Your task to perform on an android device: Open calendar and show me the first week of next month Image 0: 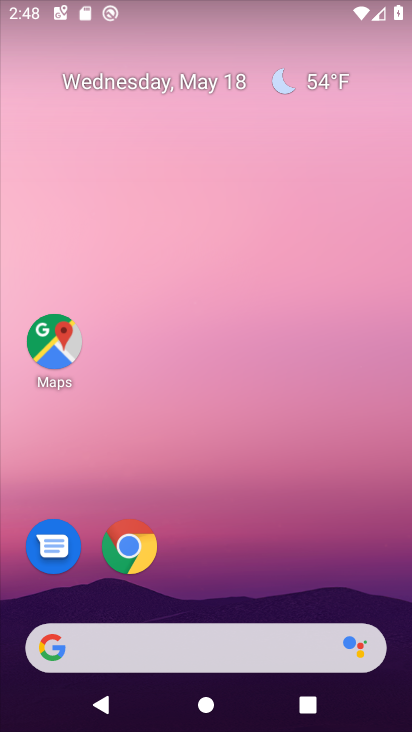
Step 0: drag from (304, 619) to (221, 140)
Your task to perform on an android device: Open calendar and show me the first week of next month Image 1: 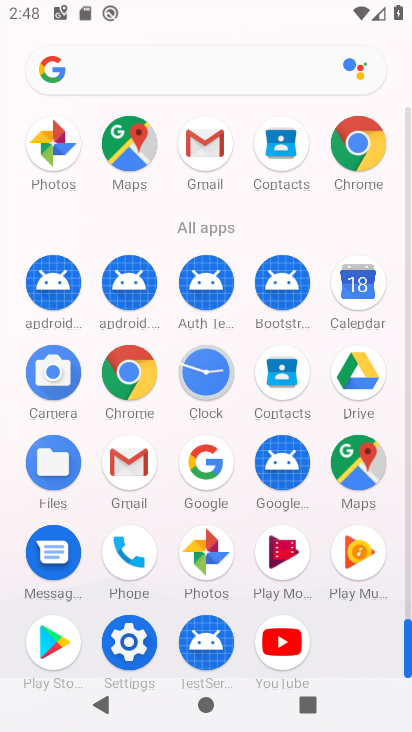
Step 1: click (364, 287)
Your task to perform on an android device: Open calendar and show me the first week of next month Image 2: 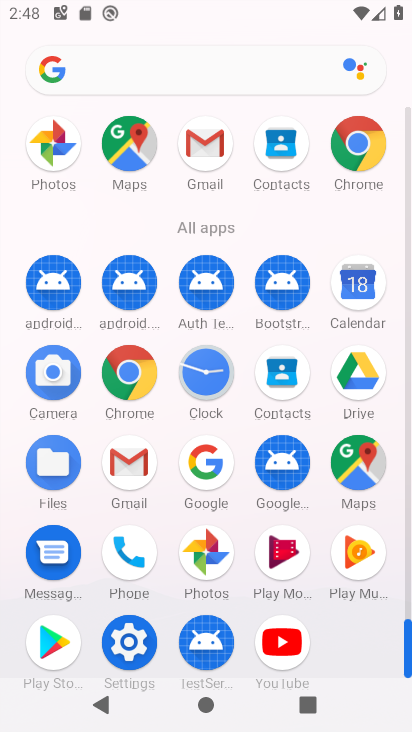
Step 2: click (365, 286)
Your task to perform on an android device: Open calendar and show me the first week of next month Image 3: 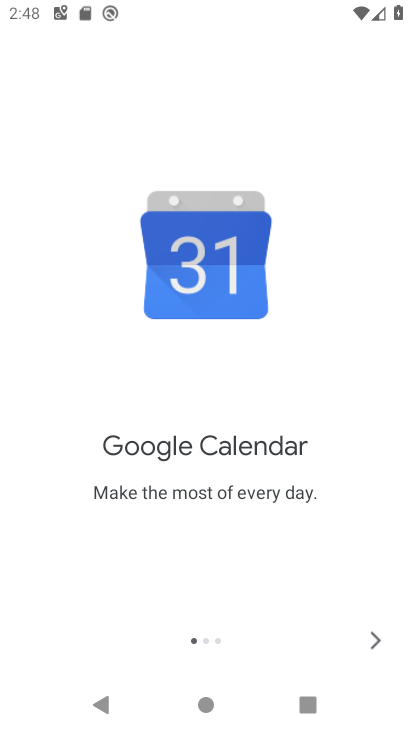
Step 3: click (378, 636)
Your task to perform on an android device: Open calendar and show me the first week of next month Image 4: 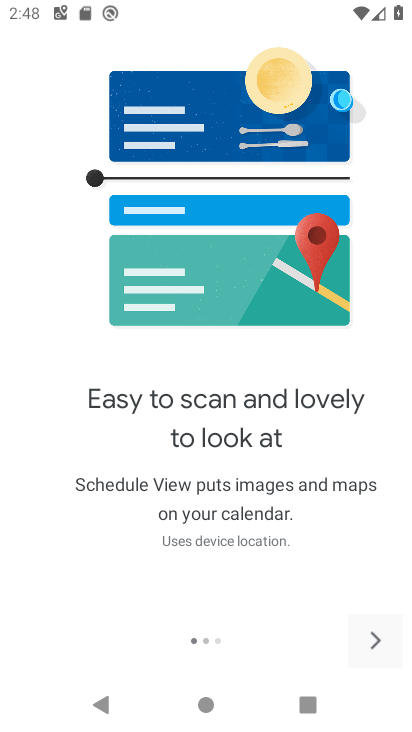
Step 4: click (378, 636)
Your task to perform on an android device: Open calendar and show me the first week of next month Image 5: 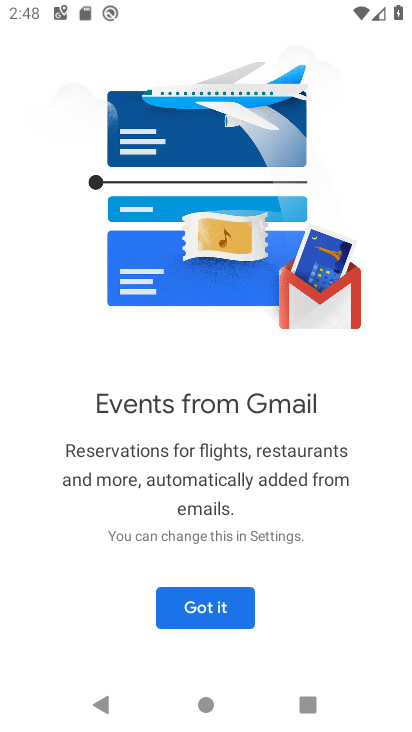
Step 5: click (214, 605)
Your task to perform on an android device: Open calendar and show me the first week of next month Image 6: 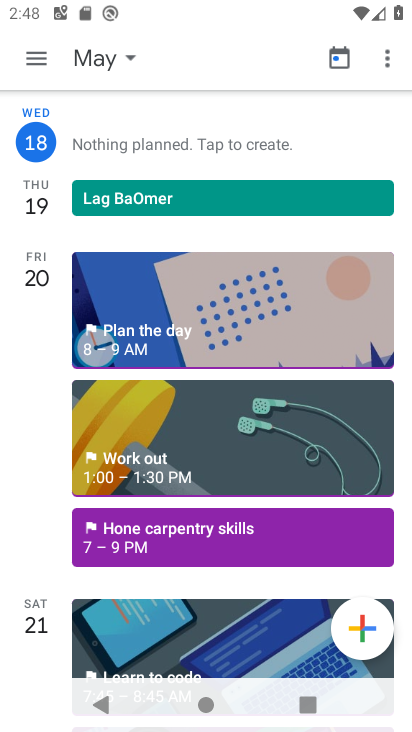
Step 6: click (118, 57)
Your task to perform on an android device: Open calendar and show me the first week of next month Image 7: 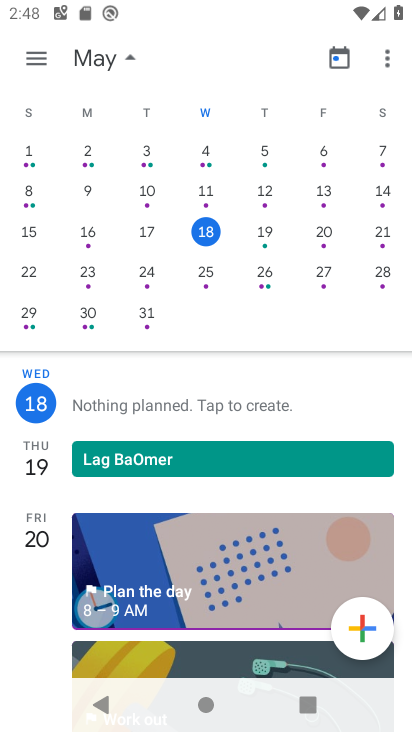
Step 7: drag from (260, 218) to (82, 315)
Your task to perform on an android device: Open calendar and show me the first week of next month Image 8: 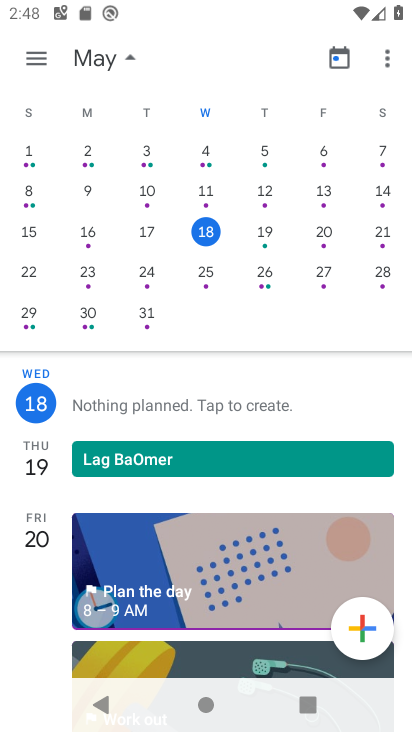
Step 8: drag from (246, 201) to (86, 354)
Your task to perform on an android device: Open calendar and show me the first week of next month Image 9: 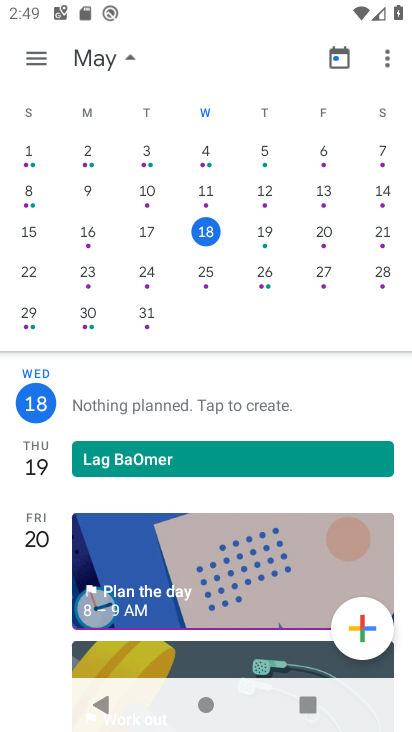
Step 9: drag from (218, 218) to (18, 323)
Your task to perform on an android device: Open calendar and show me the first week of next month Image 10: 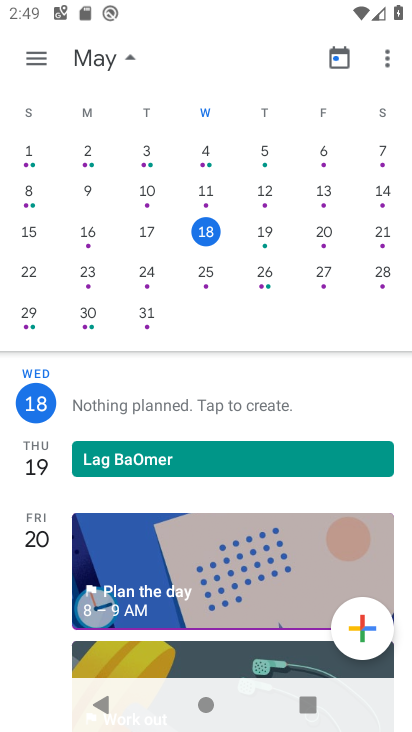
Step 10: drag from (280, 207) to (111, 266)
Your task to perform on an android device: Open calendar and show me the first week of next month Image 11: 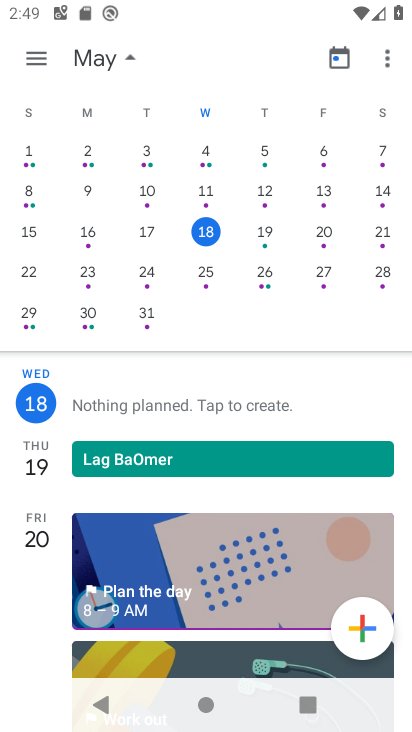
Step 11: drag from (191, 217) to (50, 214)
Your task to perform on an android device: Open calendar and show me the first week of next month Image 12: 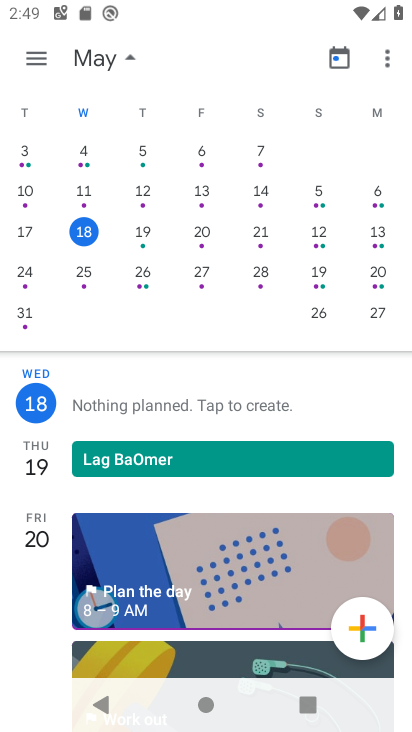
Step 12: drag from (319, 209) to (10, 224)
Your task to perform on an android device: Open calendar and show me the first week of next month Image 13: 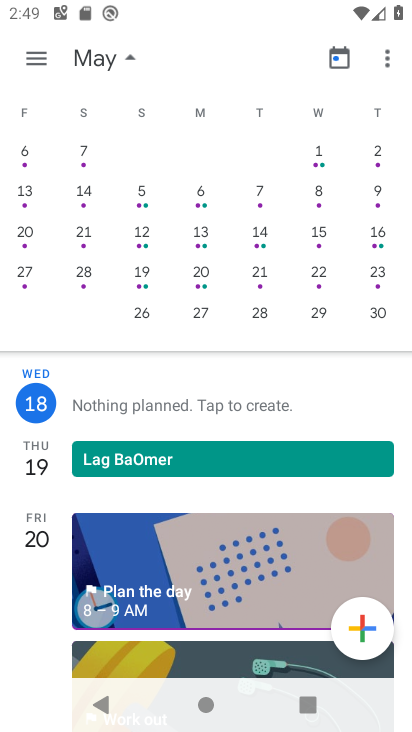
Step 13: drag from (343, 224) to (137, 235)
Your task to perform on an android device: Open calendar and show me the first week of next month Image 14: 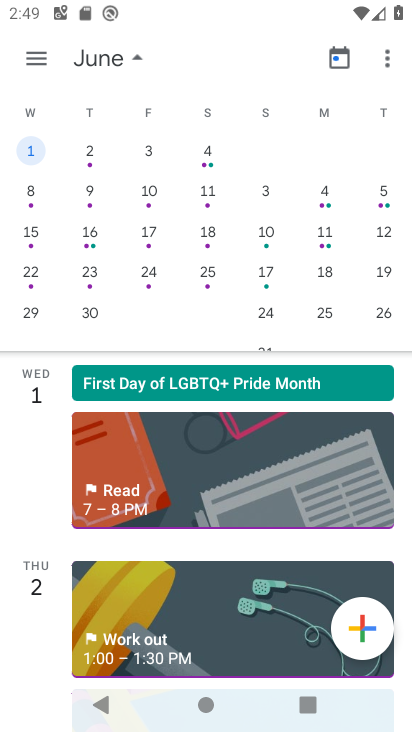
Step 14: click (16, 234)
Your task to perform on an android device: Open calendar and show me the first week of next month Image 15: 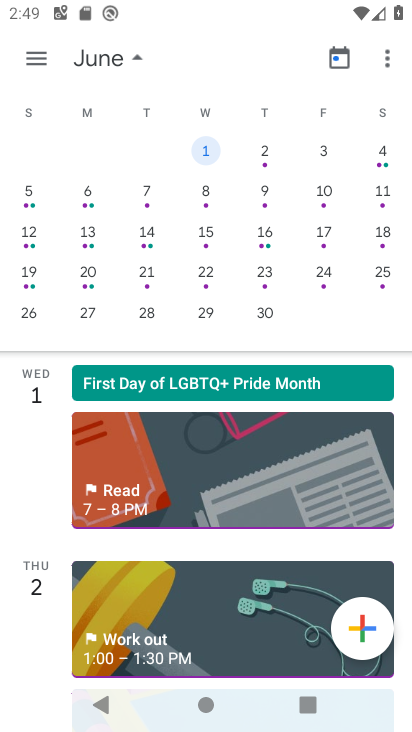
Step 15: click (17, 224)
Your task to perform on an android device: Open calendar and show me the first week of next month Image 16: 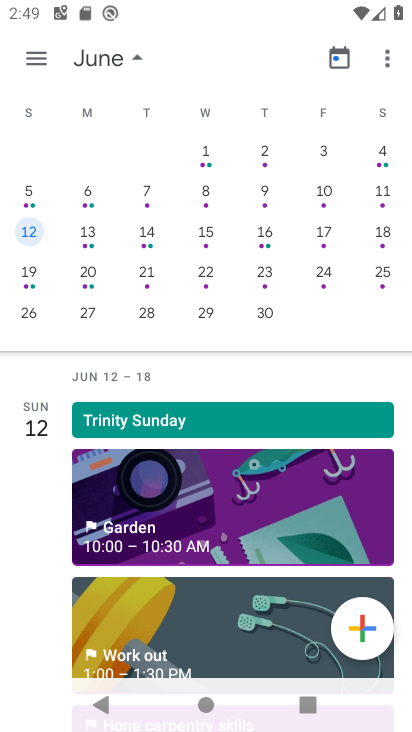
Step 16: click (333, 138)
Your task to perform on an android device: Open calendar and show me the first week of next month Image 17: 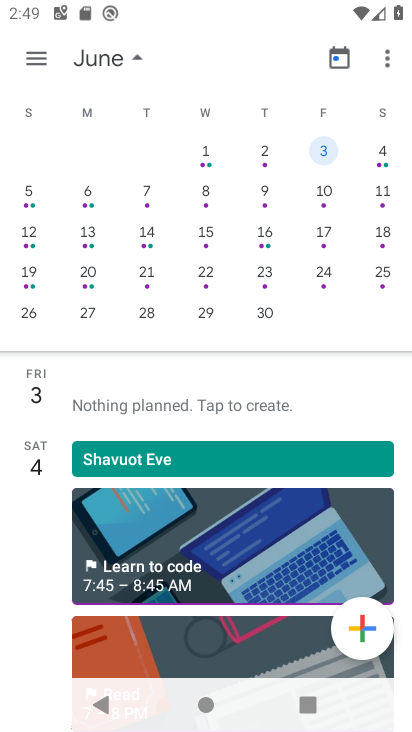
Step 17: click (327, 150)
Your task to perform on an android device: Open calendar and show me the first week of next month Image 18: 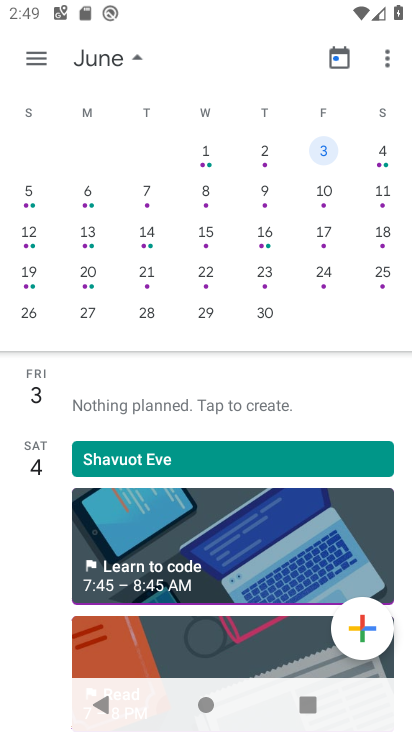
Step 18: click (321, 154)
Your task to perform on an android device: Open calendar and show me the first week of next month Image 19: 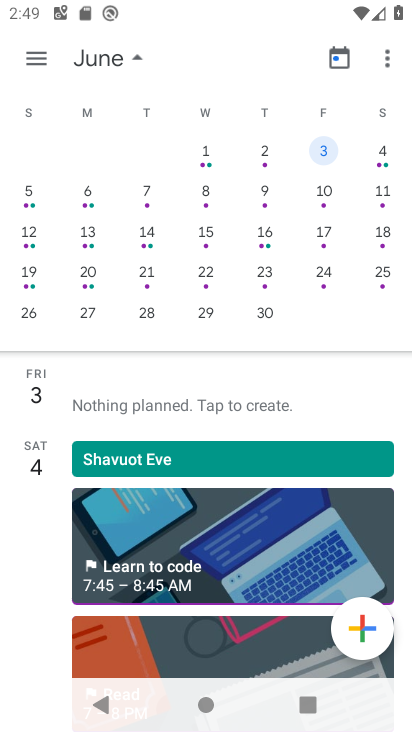
Step 19: task complete